Your task to perform on an android device: Is it going to rain tomorrow? Image 0: 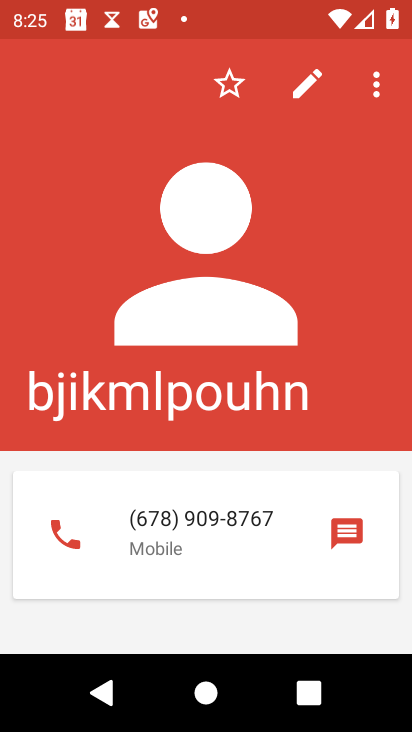
Step 0: press home button
Your task to perform on an android device: Is it going to rain tomorrow? Image 1: 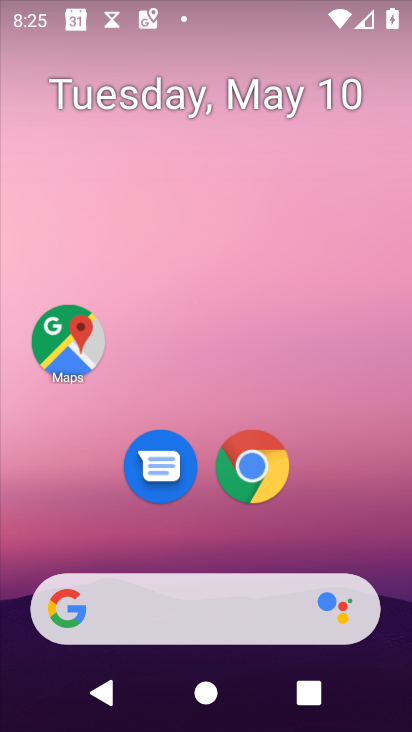
Step 1: click (176, 617)
Your task to perform on an android device: Is it going to rain tomorrow? Image 2: 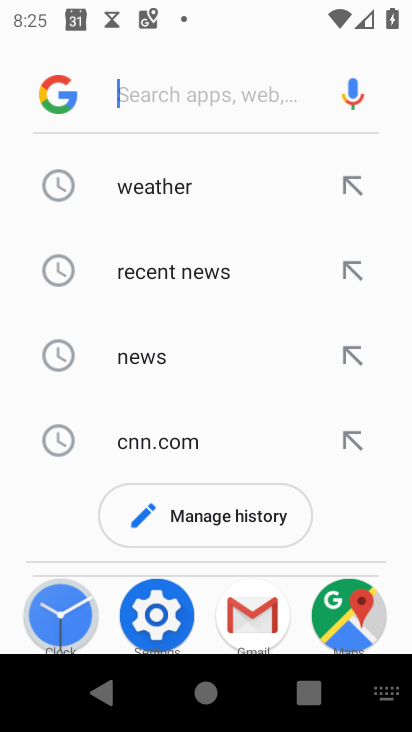
Step 2: type "is it going to rain tomorrow"
Your task to perform on an android device: Is it going to rain tomorrow? Image 3: 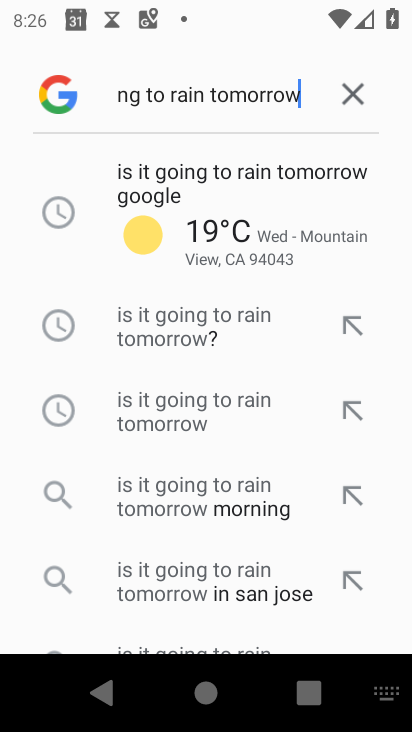
Step 3: click (191, 324)
Your task to perform on an android device: Is it going to rain tomorrow? Image 4: 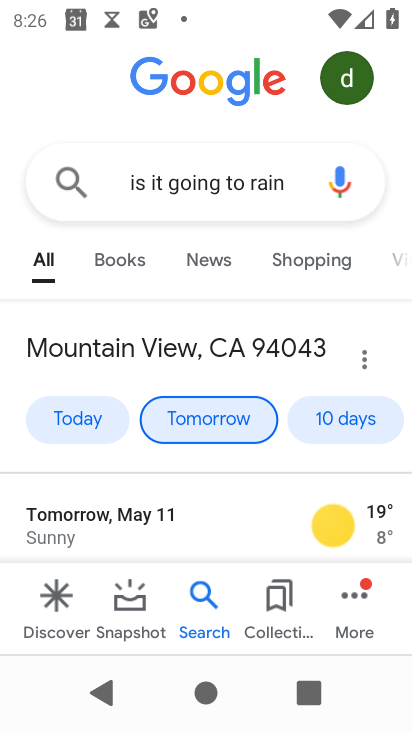
Step 4: task complete